Your task to perform on an android device: open app "Lyft - Rideshare, Bikes, Scooters & Transit" (install if not already installed) Image 0: 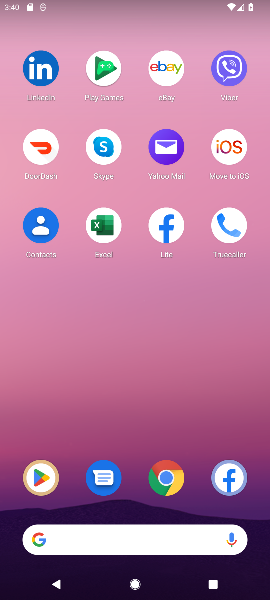
Step 0: drag from (159, 521) to (141, 171)
Your task to perform on an android device: open app "Lyft - Rideshare, Bikes, Scooters & Transit" (install if not already installed) Image 1: 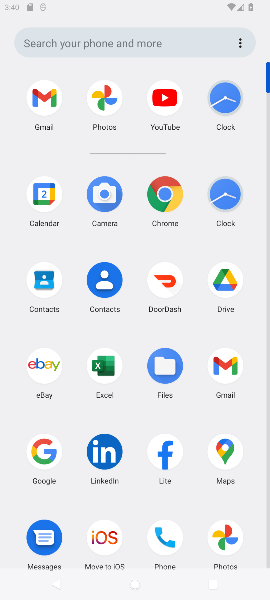
Step 1: drag from (176, 335) to (167, 259)
Your task to perform on an android device: open app "Lyft - Rideshare, Bikes, Scooters & Transit" (install if not already installed) Image 2: 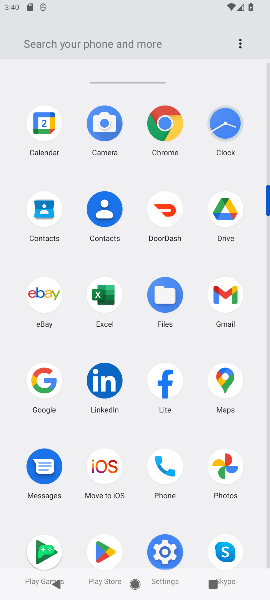
Step 2: click (99, 545)
Your task to perform on an android device: open app "Lyft - Rideshare, Bikes, Scooters & Transit" (install if not already installed) Image 3: 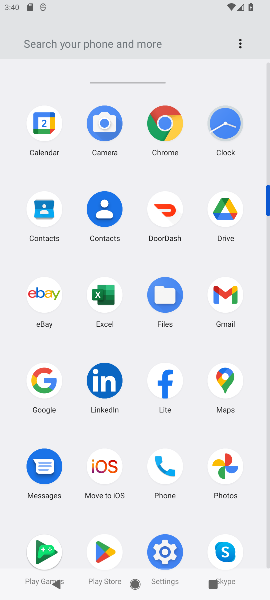
Step 3: click (99, 545)
Your task to perform on an android device: open app "Lyft - Rideshare, Bikes, Scooters & Transit" (install if not already installed) Image 4: 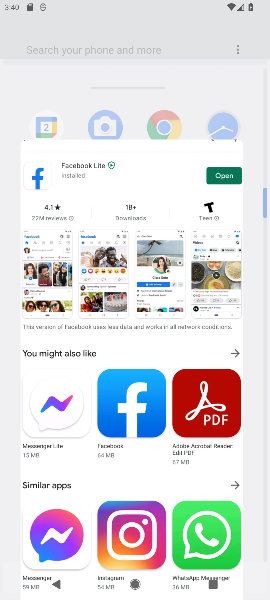
Step 4: click (100, 546)
Your task to perform on an android device: open app "Lyft - Rideshare, Bikes, Scooters & Transit" (install if not already installed) Image 5: 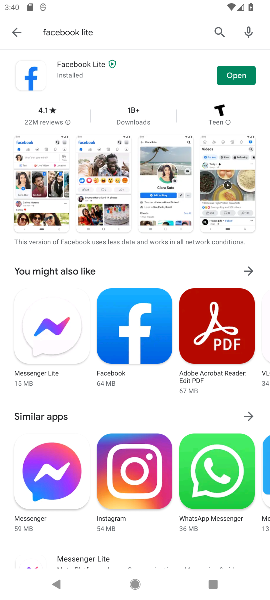
Step 5: click (6, 28)
Your task to perform on an android device: open app "Lyft - Rideshare, Bikes, Scooters & Transit" (install if not already installed) Image 6: 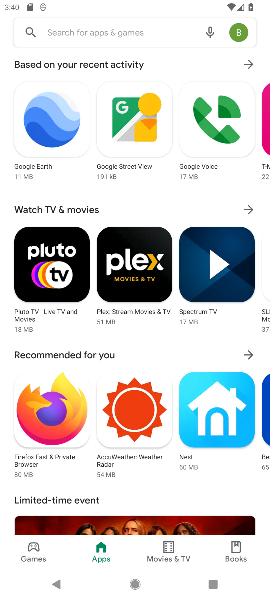
Step 6: click (73, 34)
Your task to perform on an android device: open app "Lyft - Rideshare, Bikes, Scooters & Transit" (install if not already installed) Image 7: 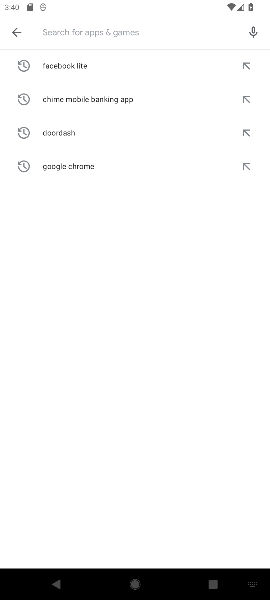
Step 7: type "lyft"
Your task to perform on an android device: open app "Lyft - Rideshare, Bikes, Scooters & Transit" (install if not already installed) Image 8: 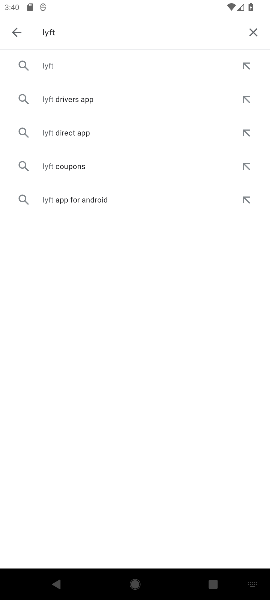
Step 8: click (50, 70)
Your task to perform on an android device: open app "Lyft - Rideshare, Bikes, Scooters & Transit" (install if not already installed) Image 9: 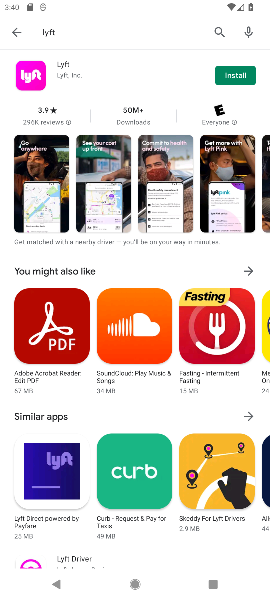
Step 9: click (235, 74)
Your task to perform on an android device: open app "Lyft - Rideshare, Bikes, Scooters & Transit" (install if not already installed) Image 10: 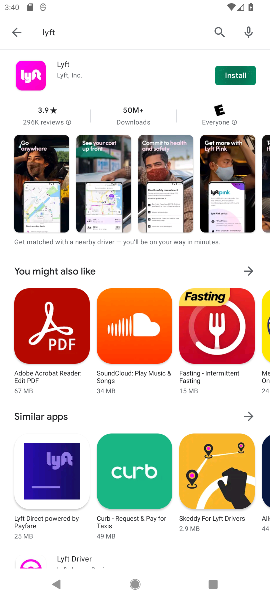
Step 10: click (235, 74)
Your task to perform on an android device: open app "Lyft - Rideshare, Bikes, Scooters & Transit" (install if not already installed) Image 11: 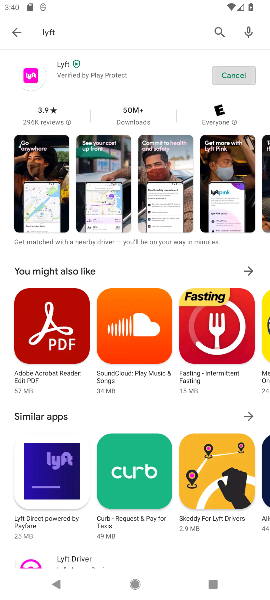
Step 11: click (237, 75)
Your task to perform on an android device: open app "Lyft - Rideshare, Bikes, Scooters & Transit" (install if not already installed) Image 12: 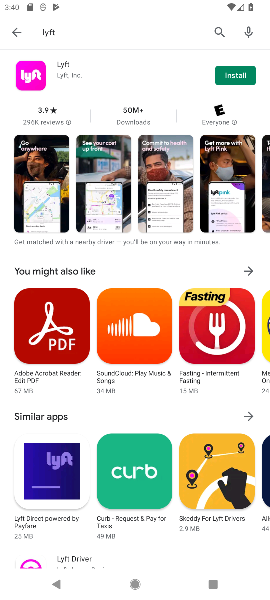
Step 12: click (236, 79)
Your task to perform on an android device: open app "Lyft - Rideshare, Bikes, Scooters & Transit" (install if not already installed) Image 13: 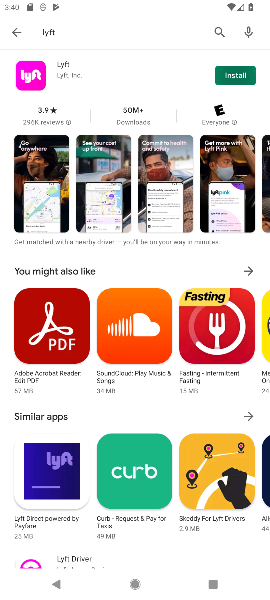
Step 13: click (236, 79)
Your task to perform on an android device: open app "Lyft - Rideshare, Bikes, Scooters & Transit" (install if not already installed) Image 14: 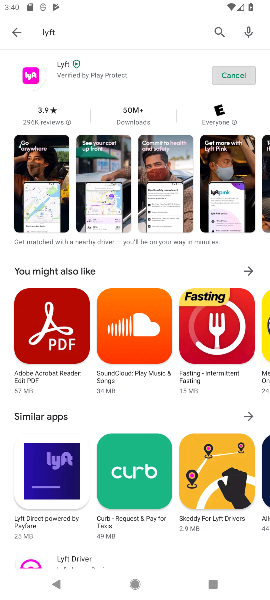
Step 14: click (236, 79)
Your task to perform on an android device: open app "Lyft - Rideshare, Bikes, Scooters & Transit" (install if not already installed) Image 15: 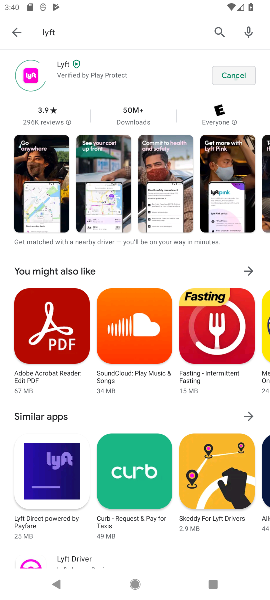
Step 15: click (236, 79)
Your task to perform on an android device: open app "Lyft - Rideshare, Bikes, Scooters & Transit" (install if not already installed) Image 16: 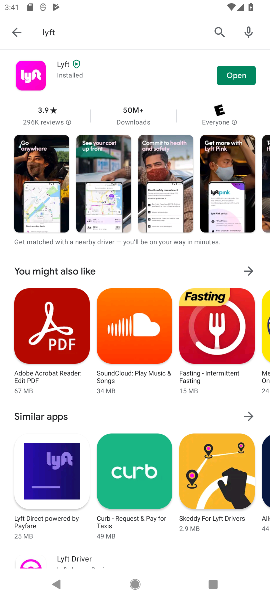
Step 16: click (233, 75)
Your task to perform on an android device: open app "Lyft - Rideshare, Bikes, Scooters & Transit" (install if not already installed) Image 17: 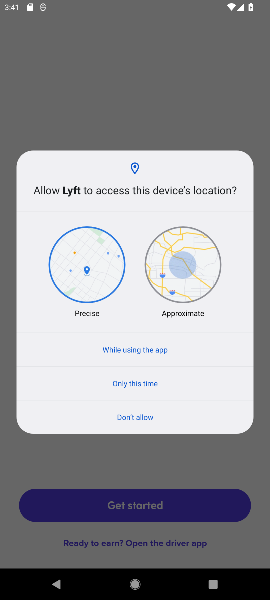
Step 17: click (138, 110)
Your task to perform on an android device: open app "Lyft - Rideshare, Bikes, Scooters & Transit" (install if not already installed) Image 18: 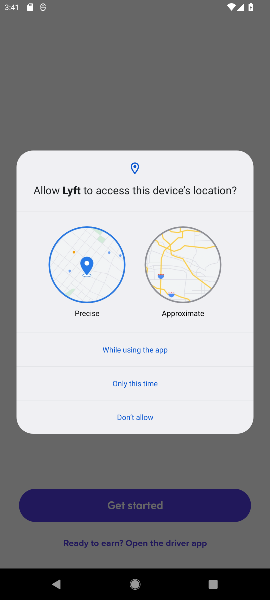
Step 18: click (138, 110)
Your task to perform on an android device: open app "Lyft - Rideshare, Bikes, Scooters & Transit" (install if not already installed) Image 19: 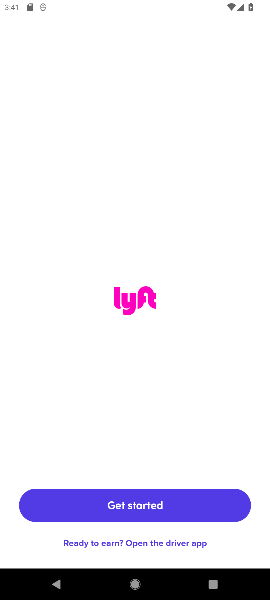
Step 19: click (138, 508)
Your task to perform on an android device: open app "Lyft - Rideshare, Bikes, Scooters & Transit" (install if not already installed) Image 20: 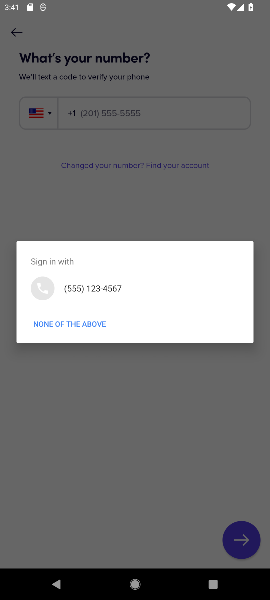
Step 20: click (14, 33)
Your task to perform on an android device: open app "Lyft - Rideshare, Bikes, Scooters & Transit" (install if not already installed) Image 21: 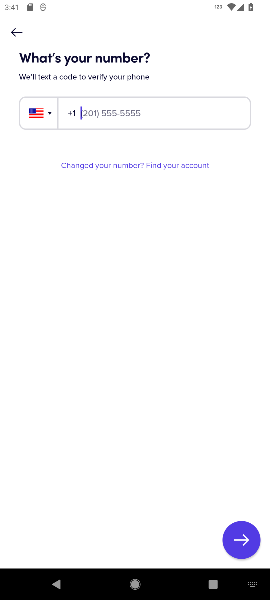
Step 21: click (18, 32)
Your task to perform on an android device: open app "Lyft - Rideshare, Bikes, Scooters & Transit" (install if not already installed) Image 22: 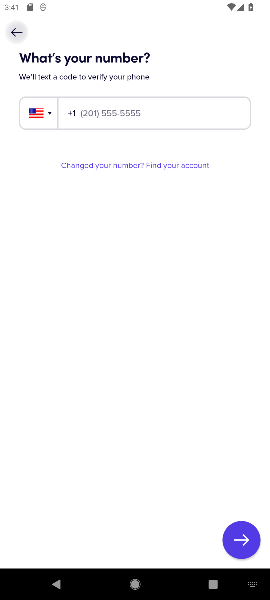
Step 22: click (20, 31)
Your task to perform on an android device: open app "Lyft - Rideshare, Bikes, Scooters & Transit" (install if not already installed) Image 23: 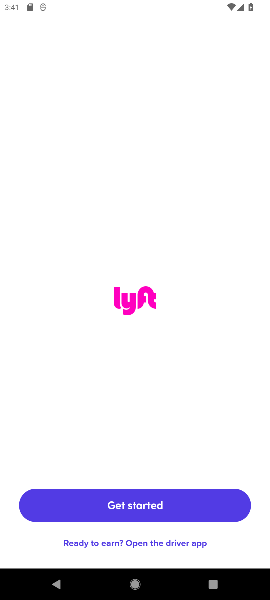
Step 23: click (138, 509)
Your task to perform on an android device: open app "Lyft - Rideshare, Bikes, Scooters & Transit" (install if not already installed) Image 24: 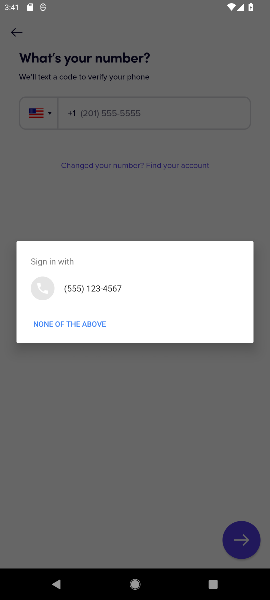
Step 24: task complete